Your task to perform on an android device: change the clock display to analog Image 0: 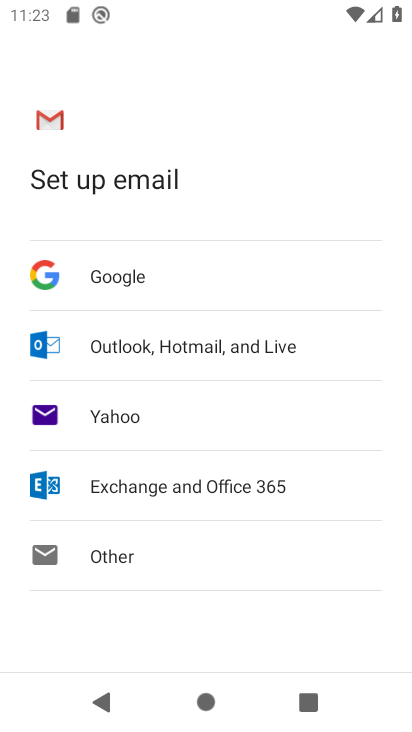
Step 0: press home button
Your task to perform on an android device: change the clock display to analog Image 1: 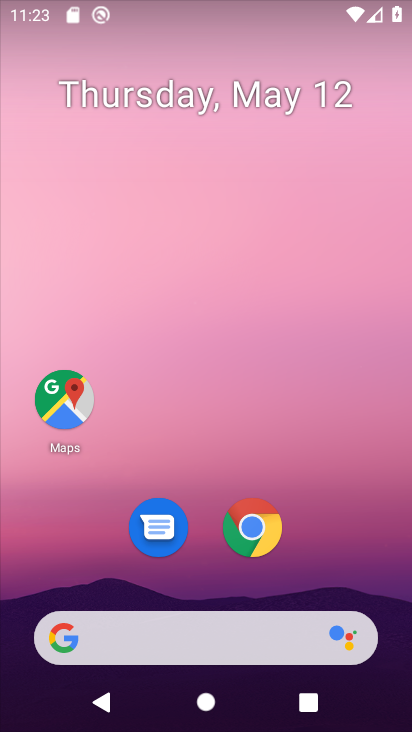
Step 1: drag from (293, 589) to (249, 175)
Your task to perform on an android device: change the clock display to analog Image 2: 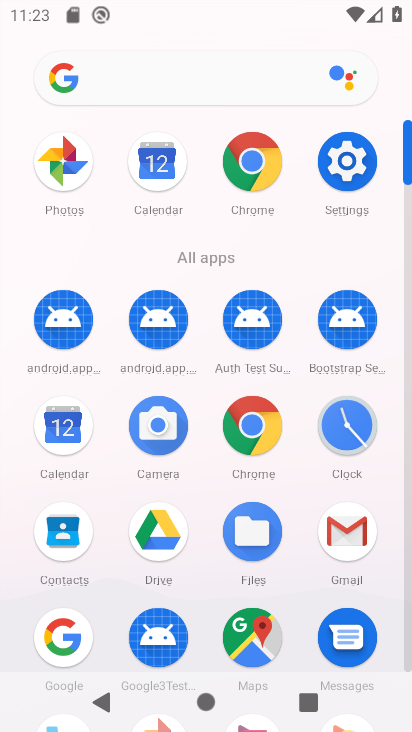
Step 2: click (350, 432)
Your task to perform on an android device: change the clock display to analog Image 3: 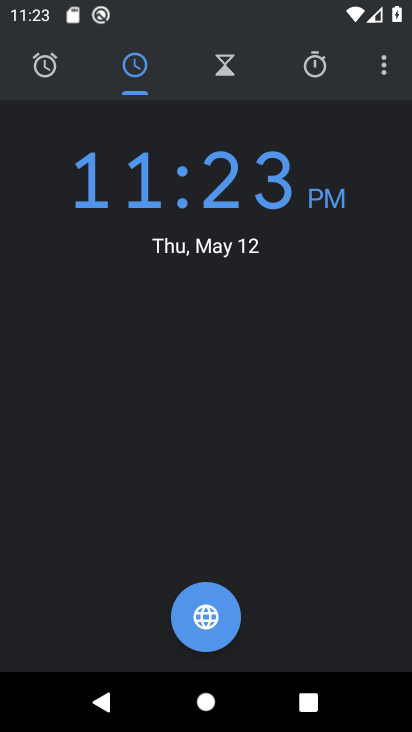
Step 3: click (385, 62)
Your task to perform on an android device: change the clock display to analog Image 4: 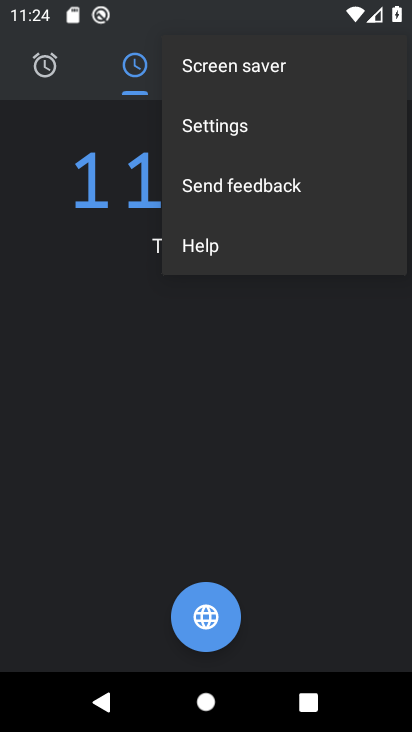
Step 4: click (280, 125)
Your task to perform on an android device: change the clock display to analog Image 5: 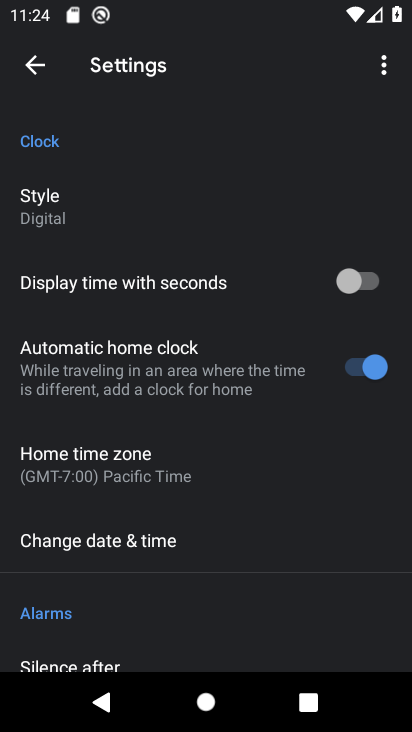
Step 5: click (59, 214)
Your task to perform on an android device: change the clock display to analog Image 6: 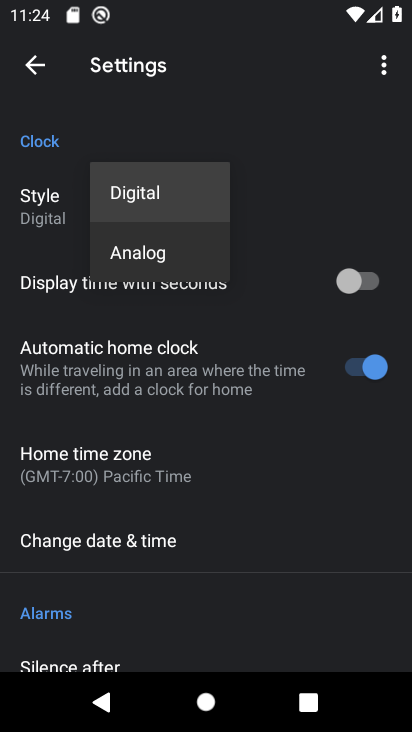
Step 6: click (117, 255)
Your task to perform on an android device: change the clock display to analog Image 7: 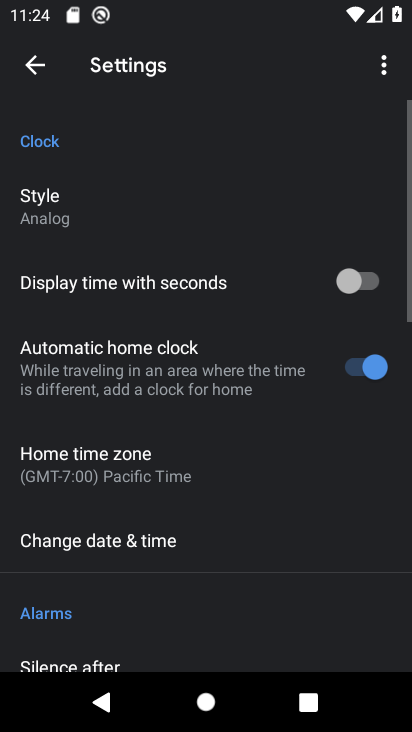
Step 7: task complete